Your task to perform on an android device: search for starred emails in the gmail app Image 0: 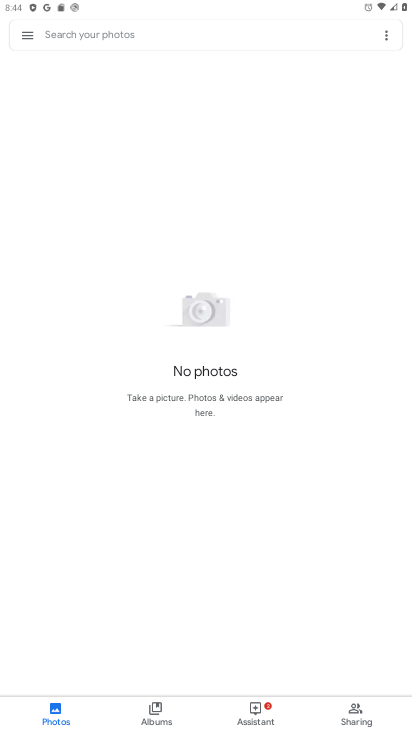
Step 0: press back button
Your task to perform on an android device: search for starred emails in the gmail app Image 1: 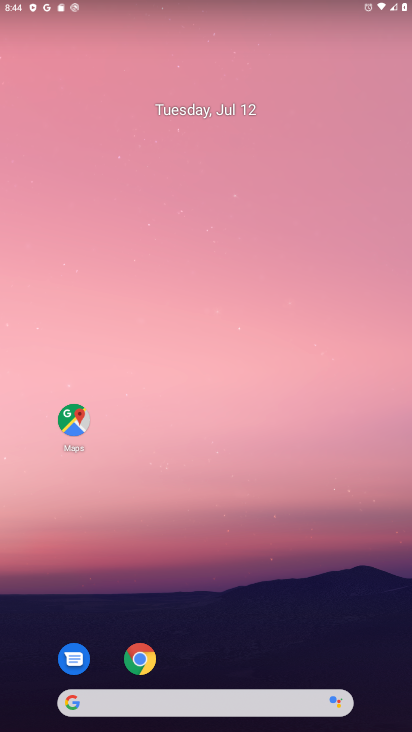
Step 1: drag from (199, 560) to (150, 162)
Your task to perform on an android device: search for starred emails in the gmail app Image 2: 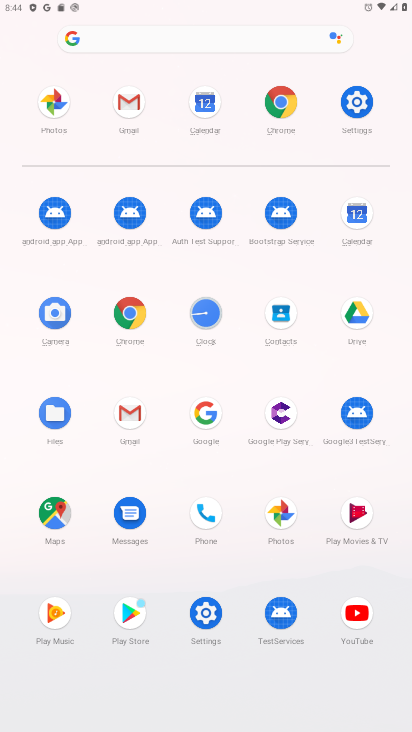
Step 2: click (123, 421)
Your task to perform on an android device: search for starred emails in the gmail app Image 3: 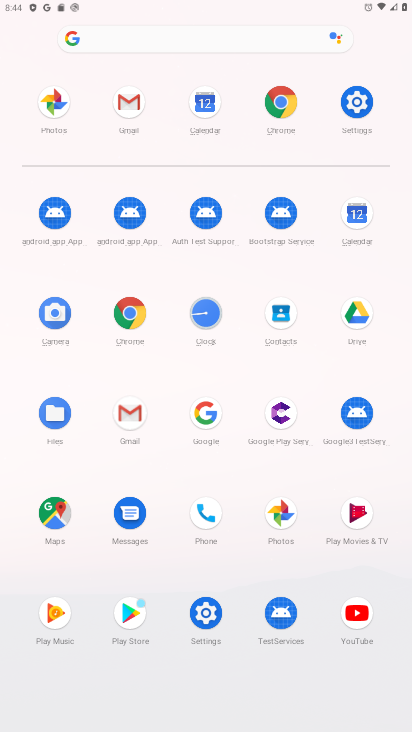
Step 3: click (124, 421)
Your task to perform on an android device: search for starred emails in the gmail app Image 4: 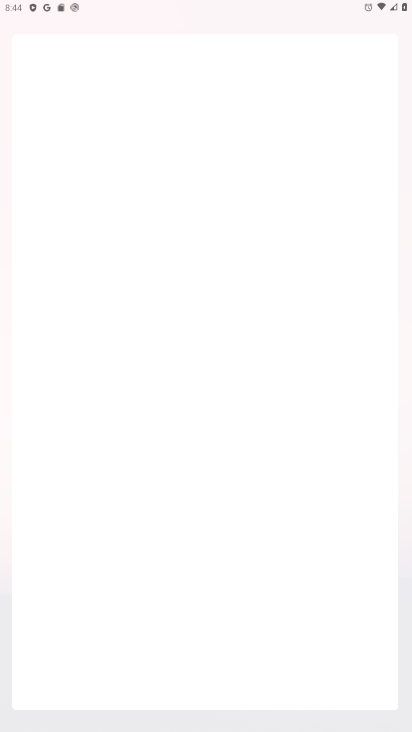
Step 4: click (126, 421)
Your task to perform on an android device: search for starred emails in the gmail app Image 5: 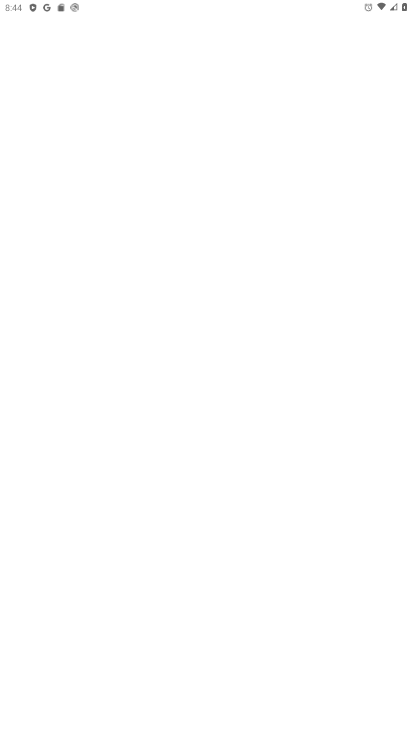
Step 5: click (126, 421)
Your task to perform on an android device: search for starred emails in the gmail app Image 6: 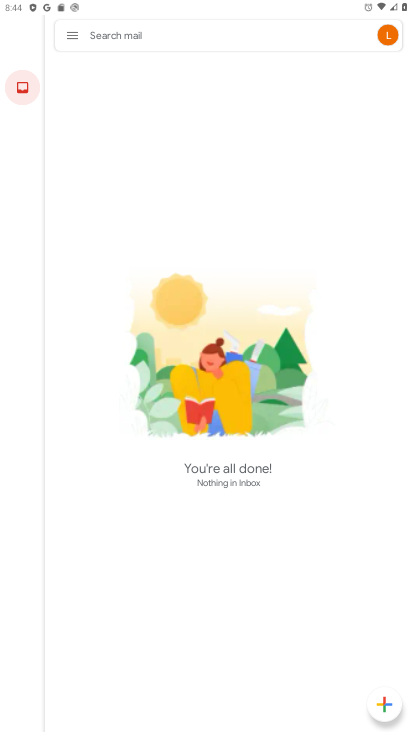
Step 6: click (73, 35)
Your task to perform on an android device: search for starred emails in the gmail app Image 7: 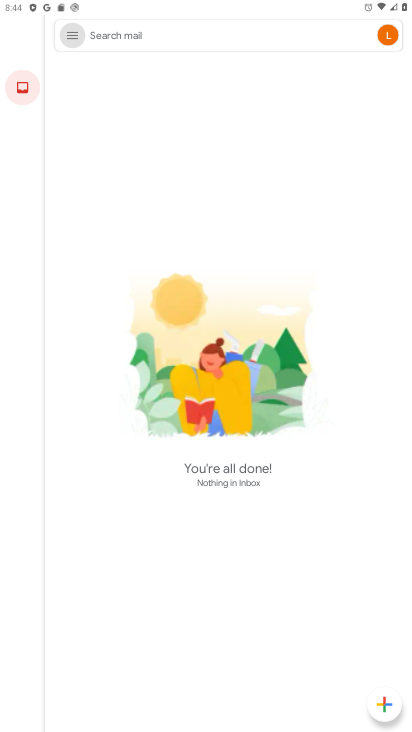
Step 7: click (74, 34)
Your task to perform on an android device: search for starred emails in the gmail app Image 8: 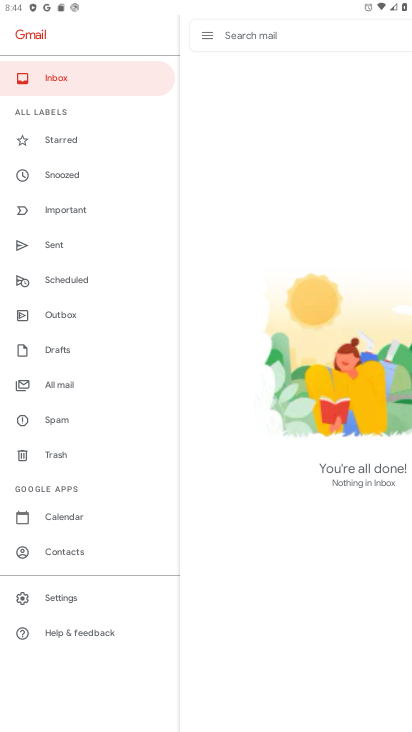
Step 8: click (61, 134)
Your task to perform on an android device: search for starred emails in the gmail app Image 9: 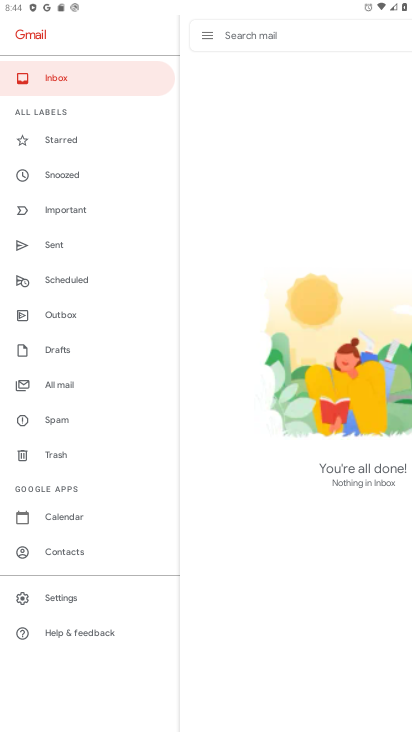
Step 9: click (64, 134)
Your task to perform on an android device: search for starred emails in the gmail app Image 10: 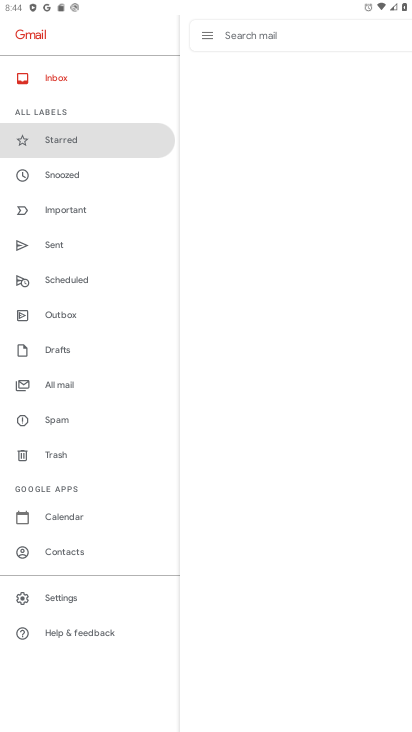
Step 10: click (71, 138)
Your task to perform on an android device: search for starred emails in the gmail app Image 11: 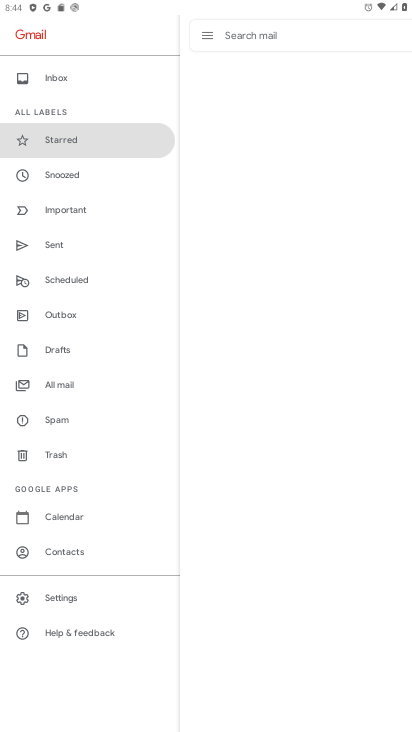
Step 11: click (76, 138)
Your task to perform on an android device: search for starred emails in the gmail app Image 12: 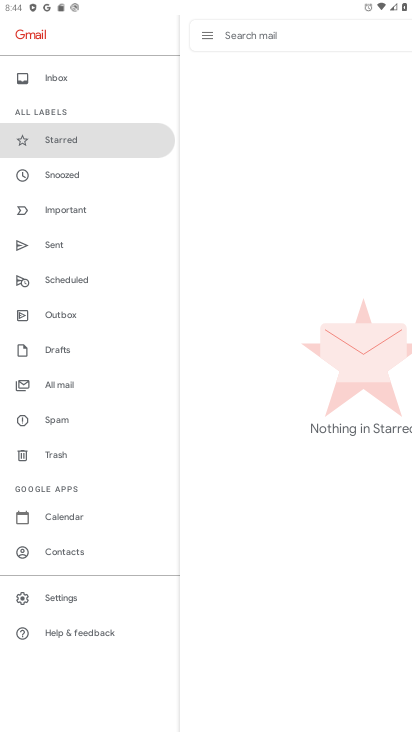
Step 12: task complete